Your task to perform on an android device: delete the emails in spam in the gmail app Image 0: 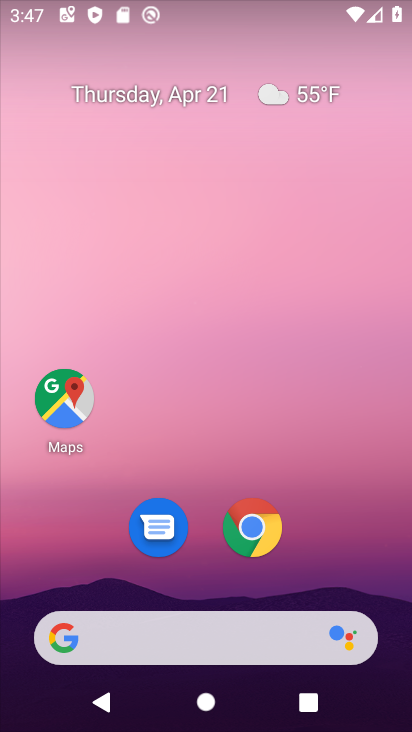
Step 0: drag from (379, 544) to (320, 188)
Your task to perform on an android device: delete the emails in spam in the gmail app Image 1: 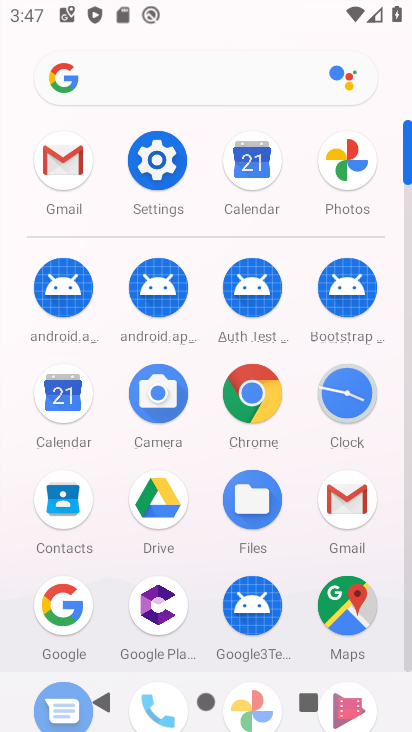
Step 1: click (69, 178)
Your task to perform on an android device: delete the emails in spam in the gmail app Image 2: 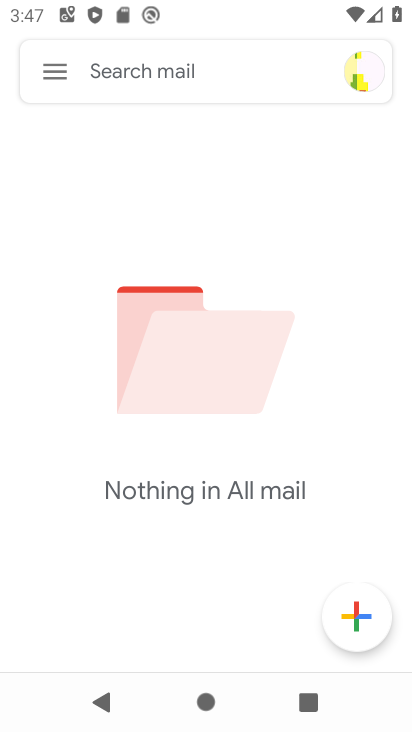
Step 2: click (50, 72)
Your task to perform on an android device: delete the emails in spam in the gmail app Image 3: 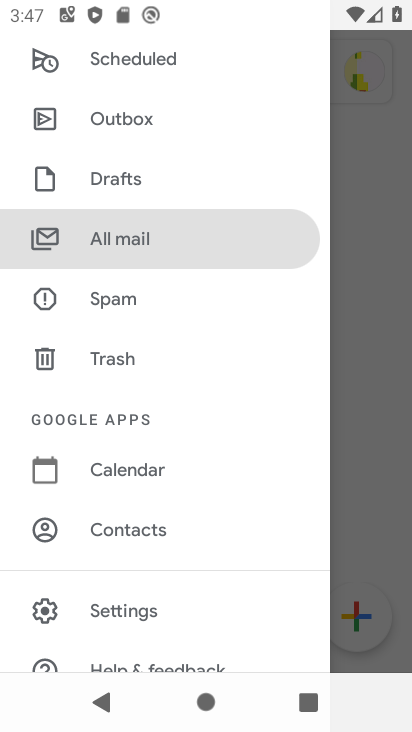
Step 3: click (197, 294)
Your task to perform on an android device: delete the emails in spam in the gmail app Image 4: 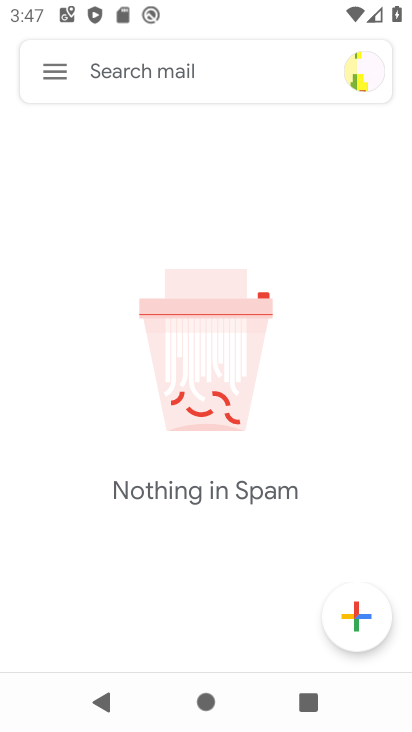
Step 4: task complete